Your task to perform on an android device: Check the news Image 0: 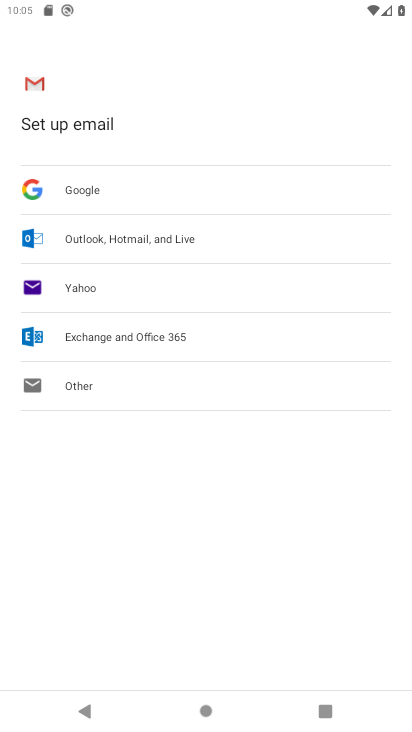
Step 0: press back button
Your task to perform on an android device: Check the news Image 1: 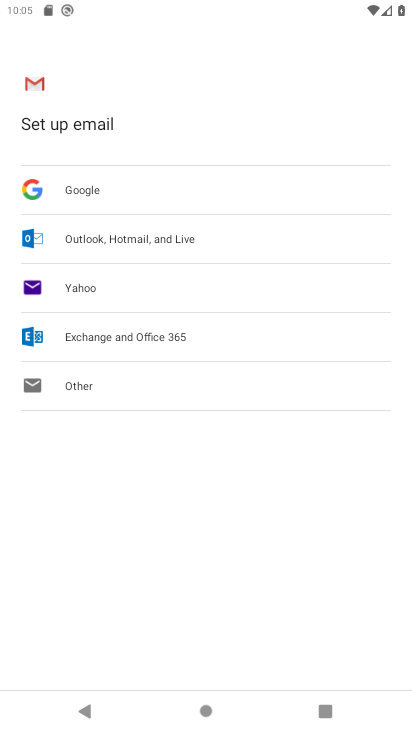
Step 1: press back button
Your task to perform on an android device: Check the news Image 2: 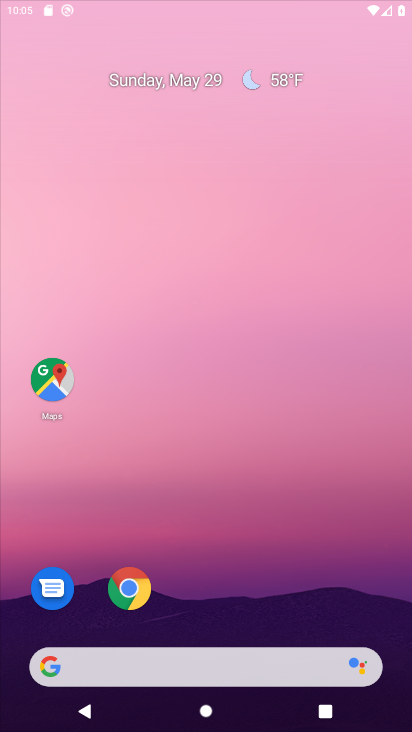
Step 2: press back button
Your task to perform on an android device: Check the news Image 3: 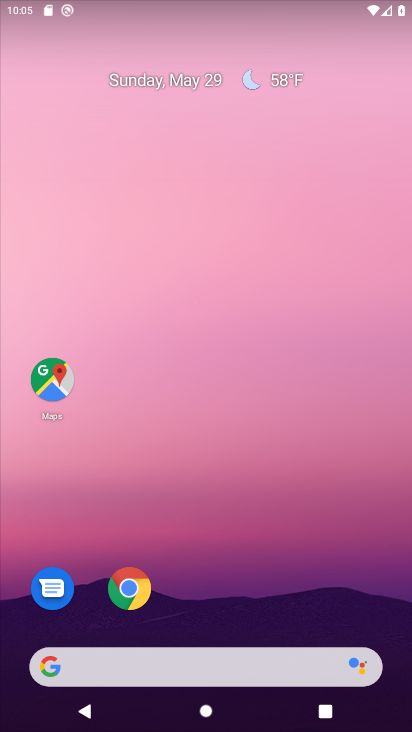
Step 3: drag from (0, 287) to (404, 532)
Your task to perform on an android device: Check the news Image 4: 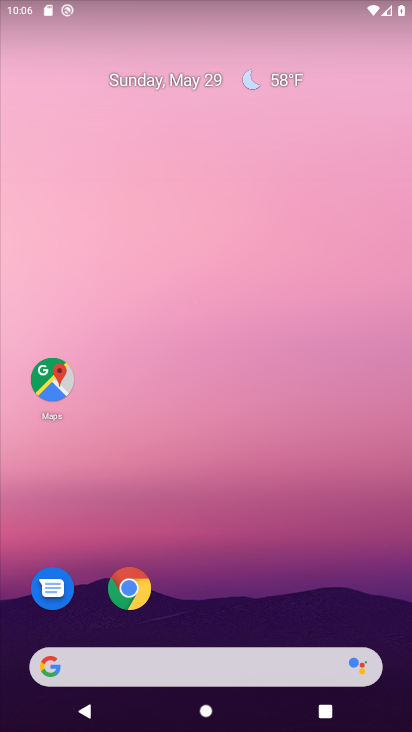
Step 4: drag from (208, 381) to (364, 385)
Your task to perform on an android device: Check the news Image 5: 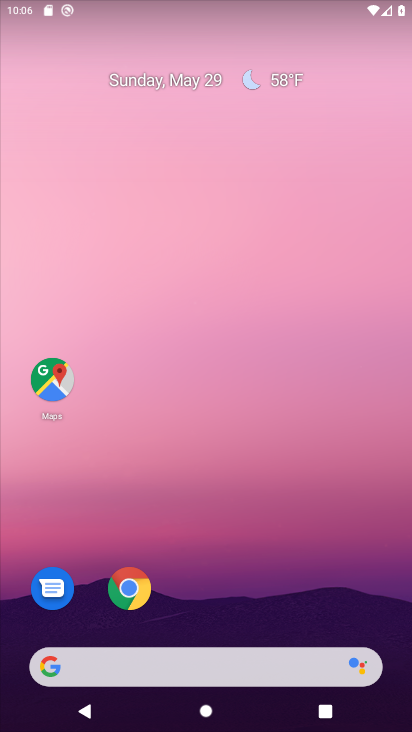
Step 5: drag from (25, 290) to (403, 482)
Your task to perform on an android device: Check the news Image 6: 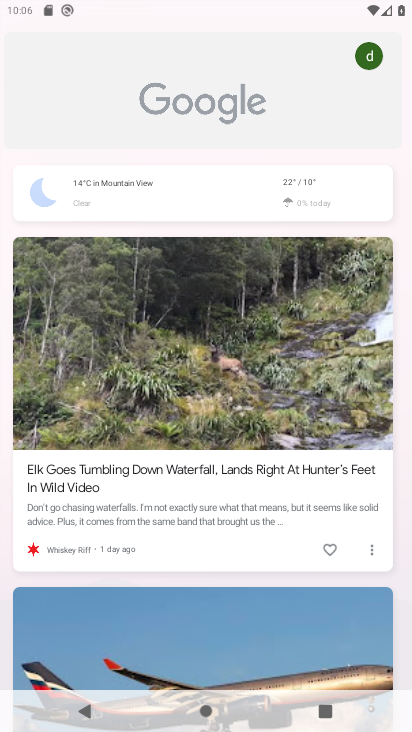
Step 6: drag from (5, 277) to (393, 383)
Your task to perform on an android device: Check the news Image 7: 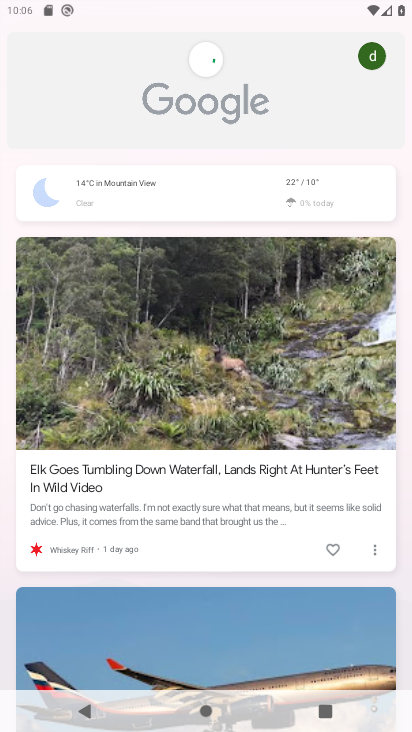
Step 7: drag from (175, 566) to (191, 270)
Your task to perform on an android device: Check the news Image 8: 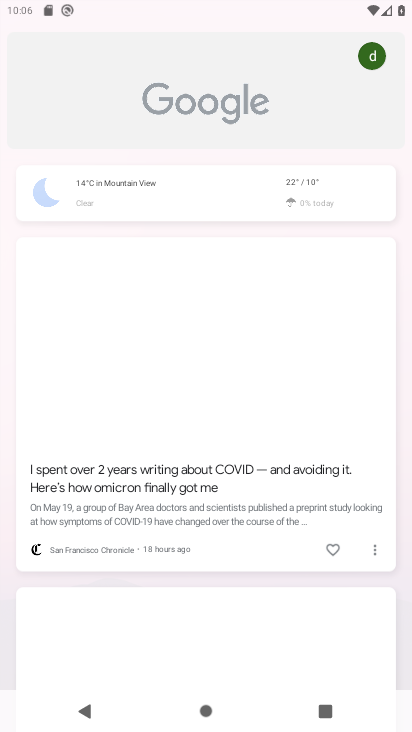
Step 8: click (150, 180)
Your task to perform on an android device: Check the news Image 9: 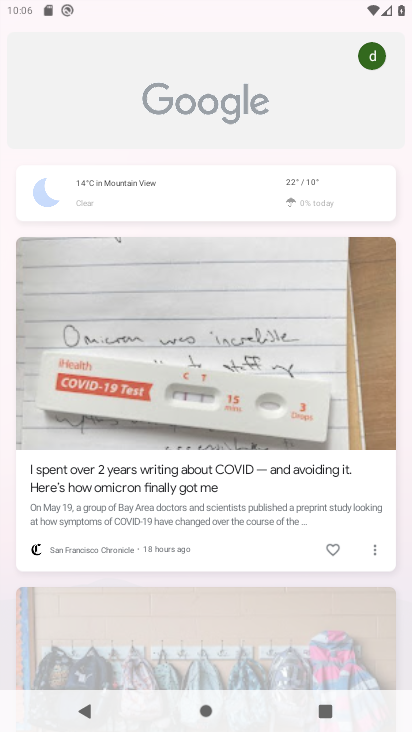
Step 9: drag from (198, 564) to (193, 246)
Your task to perform on an android device: Check the news Image 10: 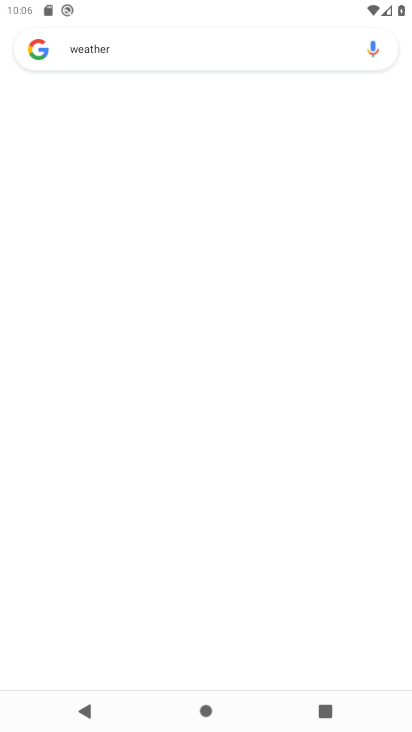
Step 10: click (119, 159)
Your task to perform on an android device: Check the news Image 11: 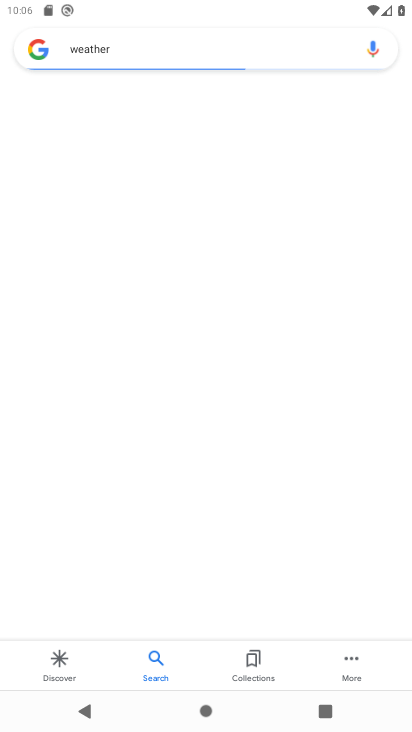
Step 11: task complete